Your task to perform on an android device: set the stopwatch Image 0: 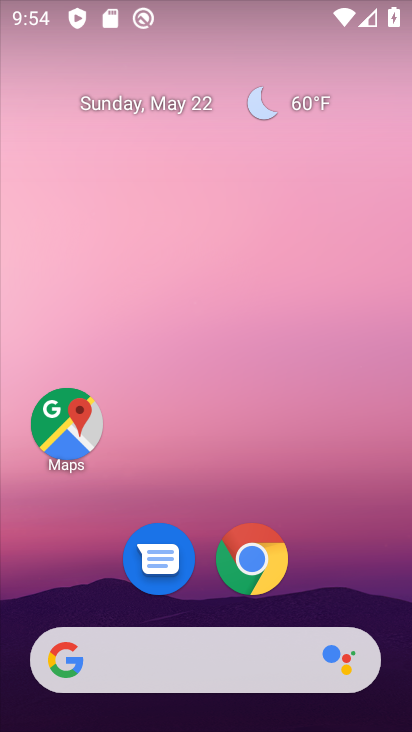
Step 0: drag from (330, 572) to (325, 98)
Your task to perform on an android device: set the stopwatch Image 1: 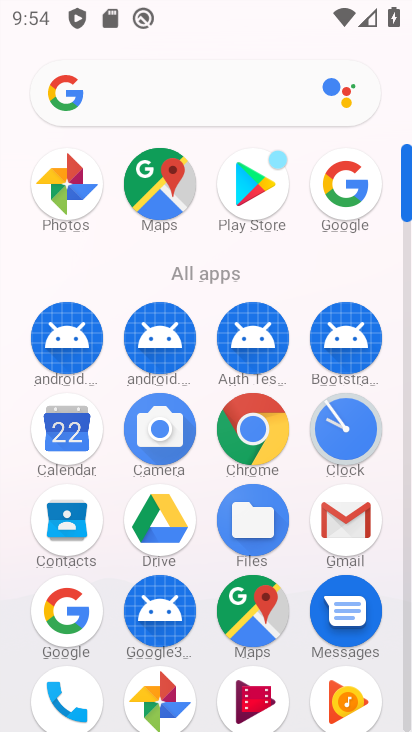
Step 1: click (336, 442)
Your task to perform on an android device: set the stopwatch Image 2: 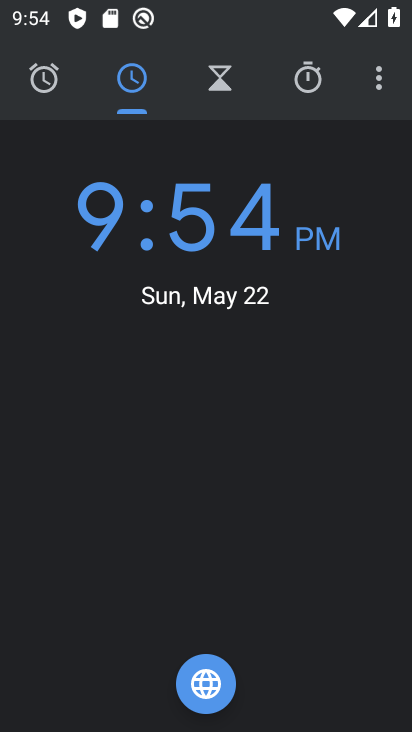
Step 2: click (283, 90)
Your task to perform on an android device: set the stopwatch Image 3: 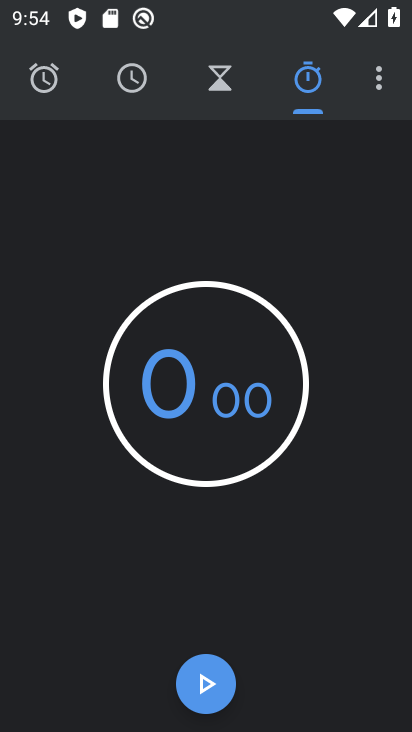
Step 3: click (190, 686)
Your task to perform on an android device: set the stopwatch Image 4: 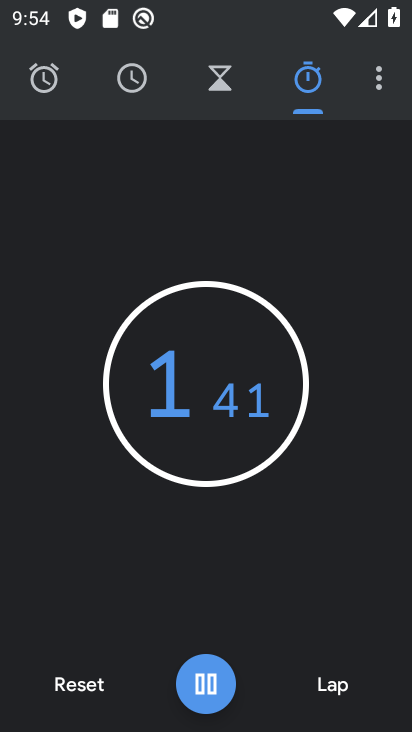
Step 4: task complete